Your task to perform on an android device: Open ESPN.com Image 0: 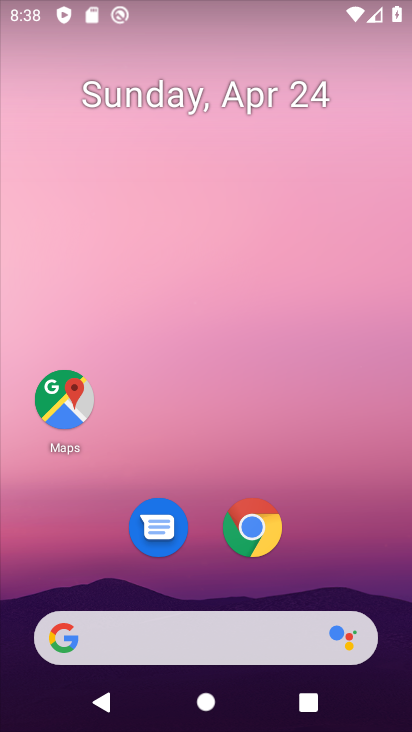
Step 0: click (276, 528)
Your task to perform on an android device: Open ESPN.com Image 1: 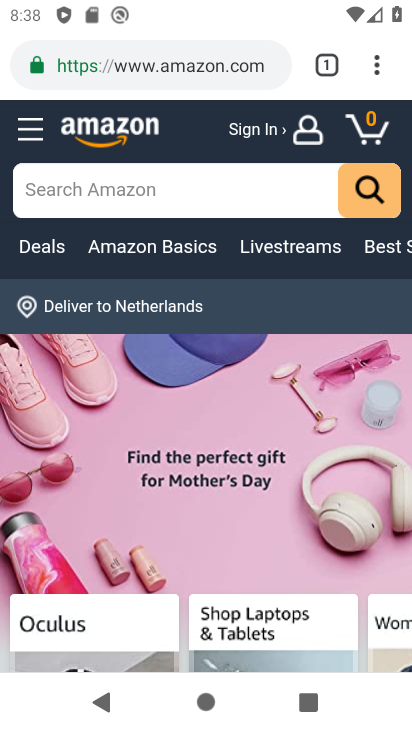
Step 1: press back button
Your task to perform on an android device: Open ESPN.com Image 2: 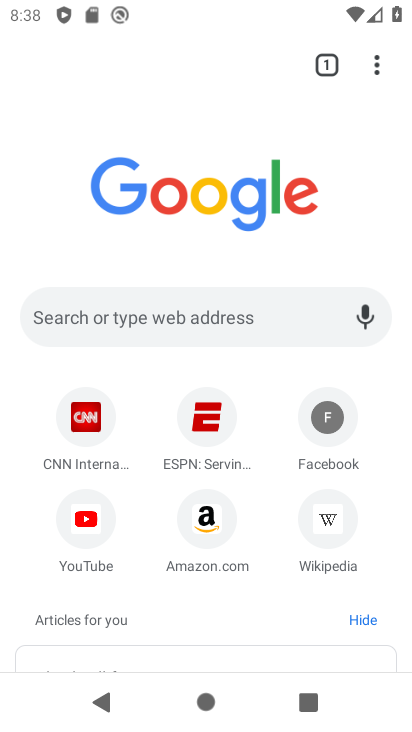
Step 2: click (207, 412)
Your task to perform on an android device: Open ESPN.com Image 3: 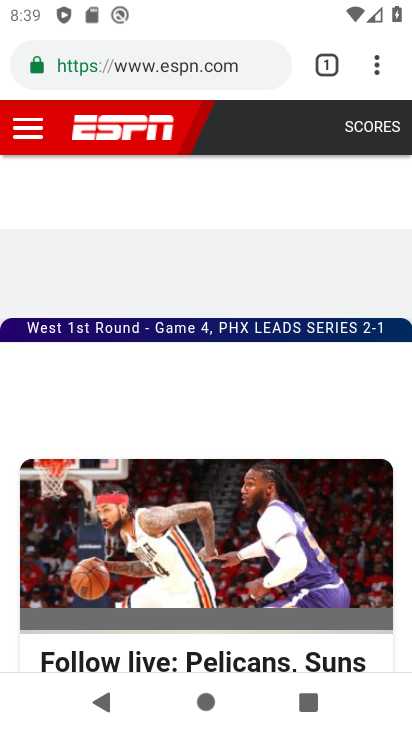
Step 3: task complete